Your task to perform on an android device: Open Youtube and go to "Your channel" Image 0: 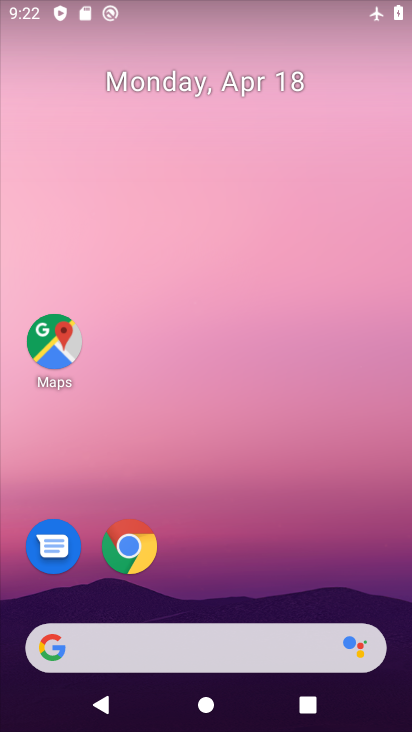
Step 0: drag from (199, 595) to (290, 77)
Your task to perform on an android device: Open Youtube and go to "Your channel" Image 1: 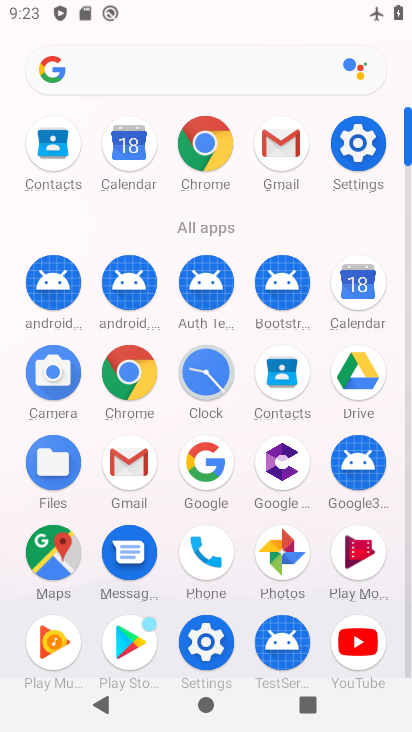
Step 1: drag from (369, 162) to (359, 653)
Your task to perform on an android device: Open Youtube and go to "Your channel" Image 2: 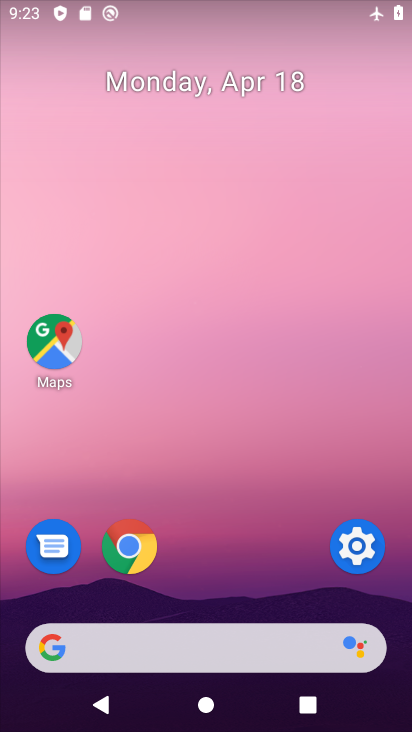
Step 2: drag from (299, 540) to (344, 175)
Your task to perform on an android device: Open Youtube and go to "Your channel" Image 3: 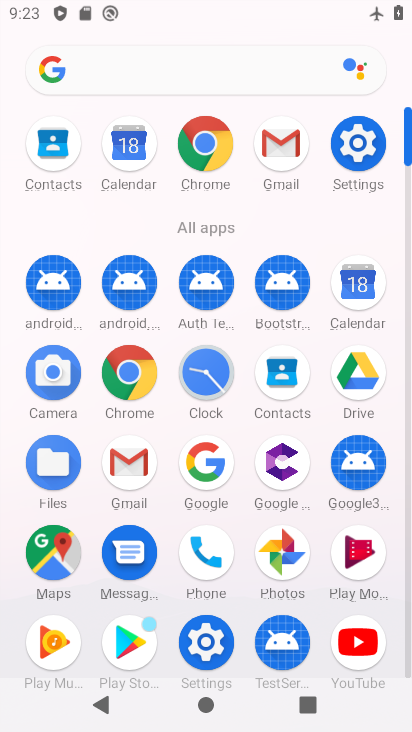
Step 3: click (363, 627)
Your task to perform on an android device: Open Youtube and go to "Your channel" Image 4: 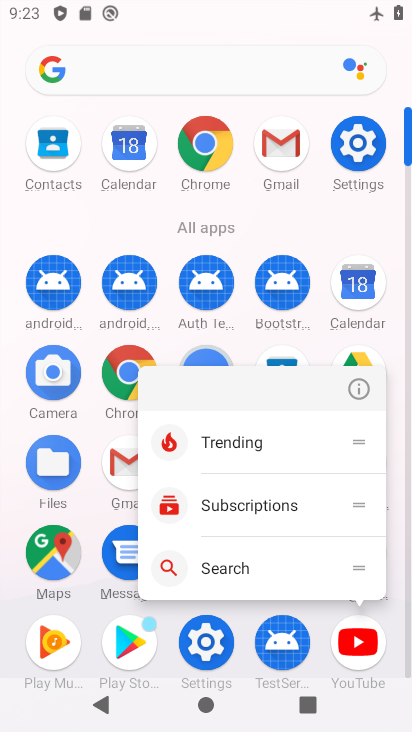
Step 4: click (360, 643)
Your task to perform on an android device: Open Youtube and go to "Your channel" Image 5: 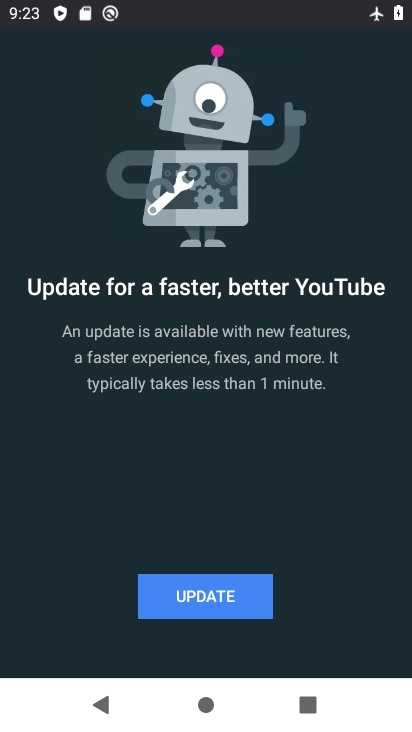
Step 5: click (207, 614)
Your task to perform on an android device: Open Youtube and go to "Your channel" Image 6: 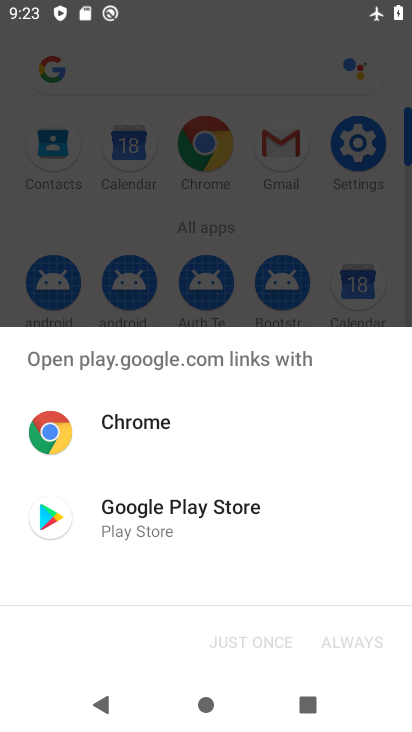
Step 6: click (191, 519)
Your task to perform on an android device: Open Youtube and go to "Your channel" Image 7: 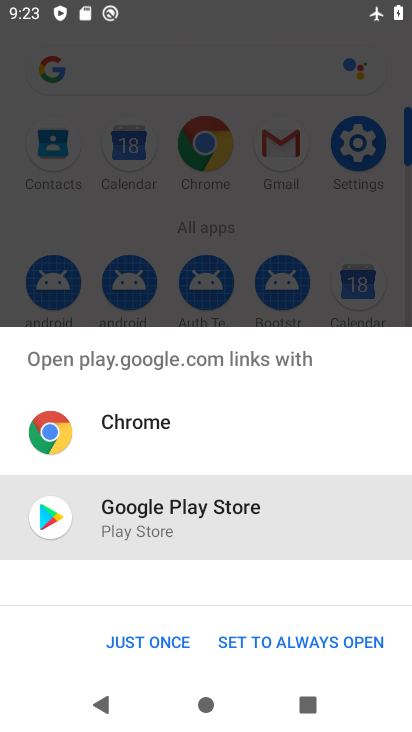
Step 7: click (146, 640)
Your task to perform on an android device: Open Youtube and go to "Your channel" Image 8: 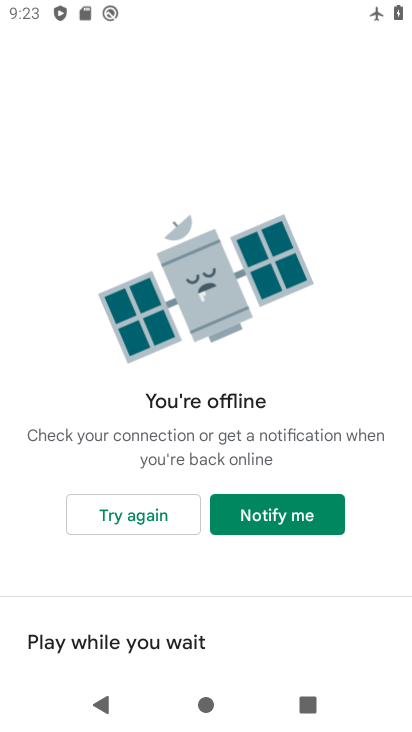
Step 8: click (139, 520)
Your task to perform on an android device: Open Youtube and go to "Your channel" Image 9: 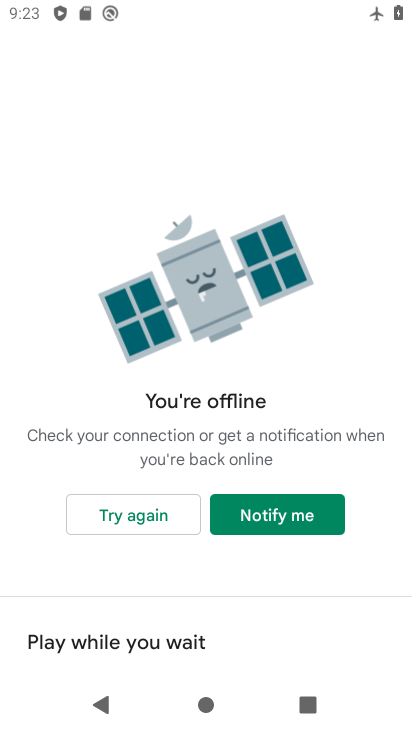
Step 9: task complete